Your task to perform on an android device: install app "Move to iOS" Image 0: 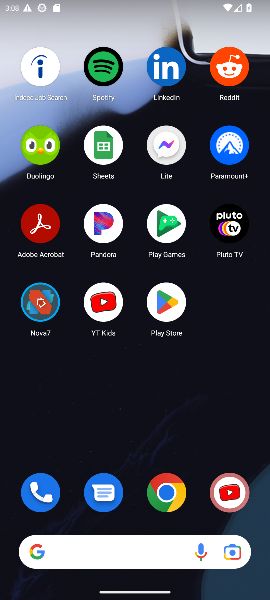
Step 0: click (155, 312)
Your task to perform on an android device: install app "Move to iOS" Image 1: 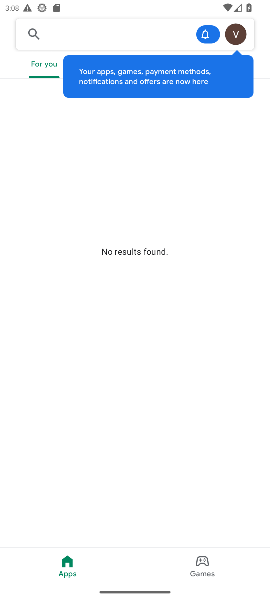
Step 1: click (178, 40)
Your task to perform on an android device: install app "Move to iOS" Image 2: 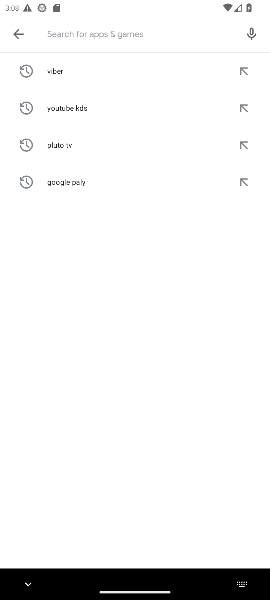
Step 2: type "move so"
Your task to perform on an android device: install app "Move to iOS" Image 3: 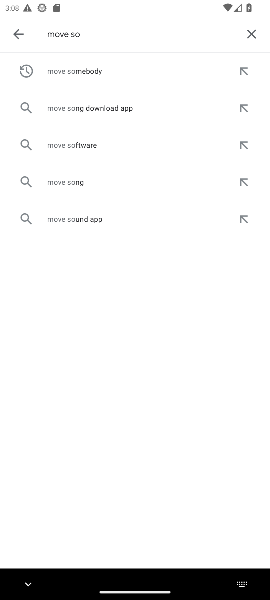
Step 3: task complete